Your task to perform on an android device: allow cookies in the chrome app Image 0: 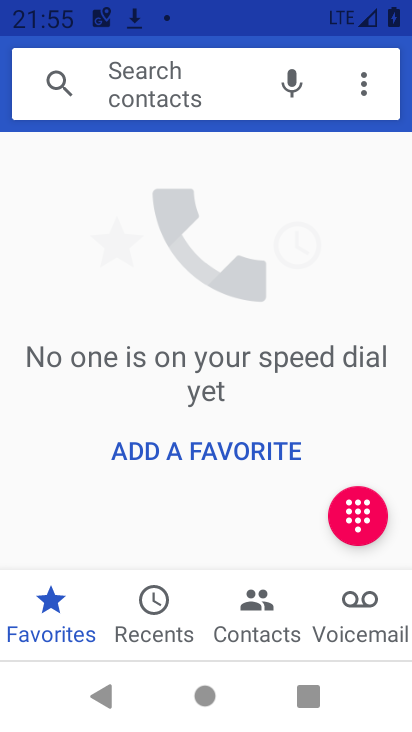
Step 0: press back button
Your task to perform on an android device: allow cookies in the chrome app Image 1: 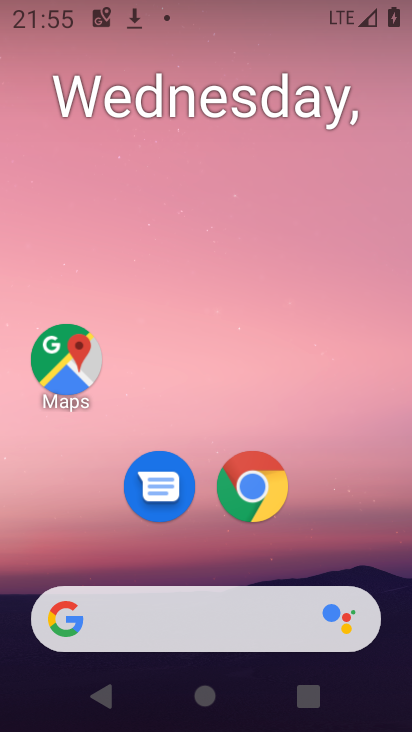
Step 1: click (273, 467)
Your task to perform on an android device: allow cookies in the chrome app Image 2: 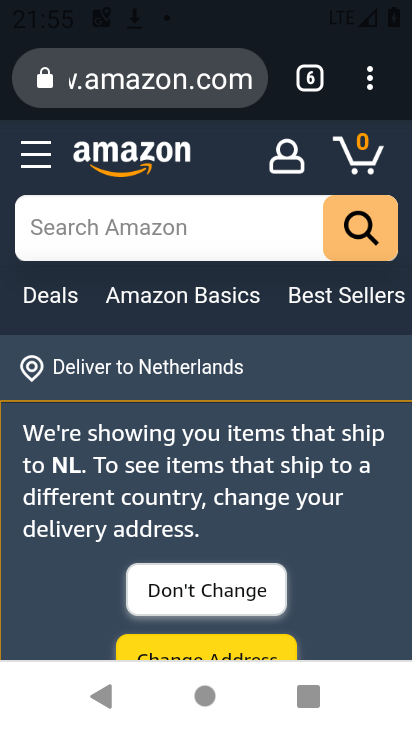
Step 2: drag from (372, 75) to (108, 558)
Your task to perform on an android device: allow cookies in the chrome app Image 3: 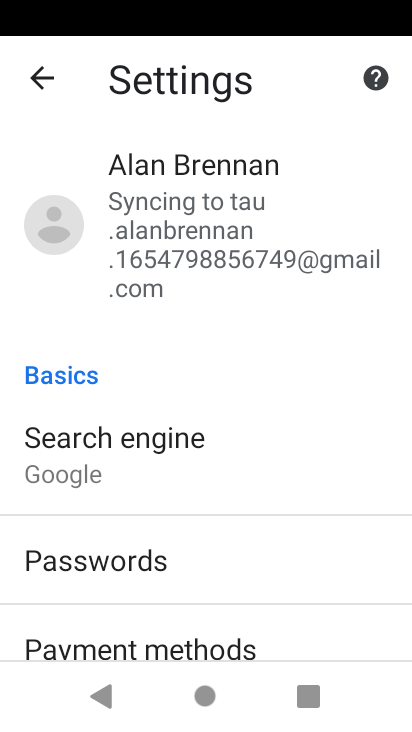
Step 3: drag from (170, 593) to (163, 62)
Your task to perform on an android device: allow cookies in the chrome app Image 4: 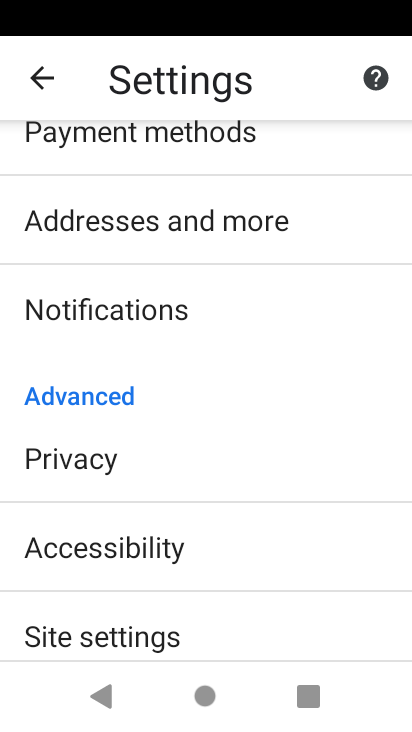
Step 4: click (96, 636)
Your task to perform on an android device: allow cookies in the chrome app Image 5: 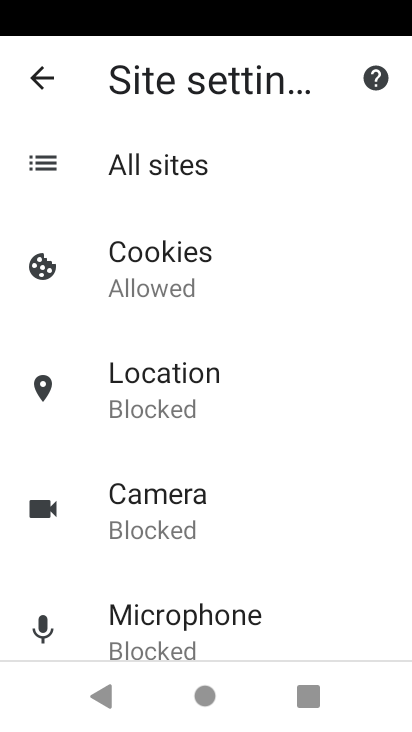
Step 5: click (183, 284)
Your task to perform on an android device: allow cookies in the chrome app Image 6: 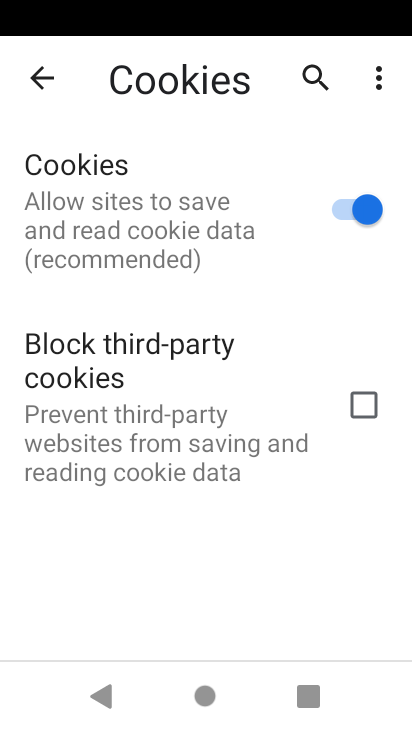
Step 6: task complete